Your task to perform on an android device: Go to Android settings Image 0: 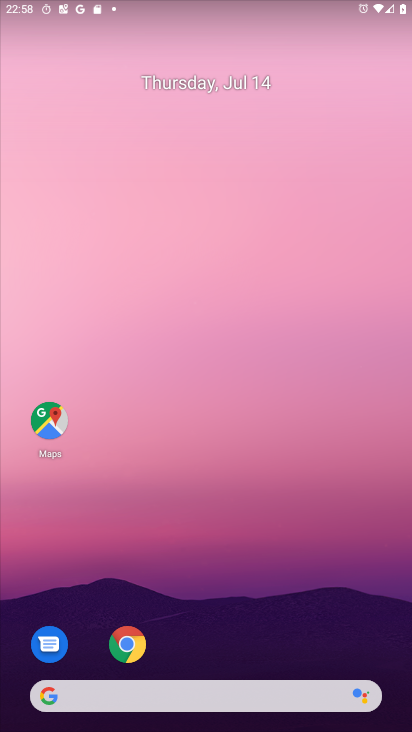
Step 0: drag from (176, 470) to (160, 217)
Your task to perform on an android device: Go to Android settings Image 1: 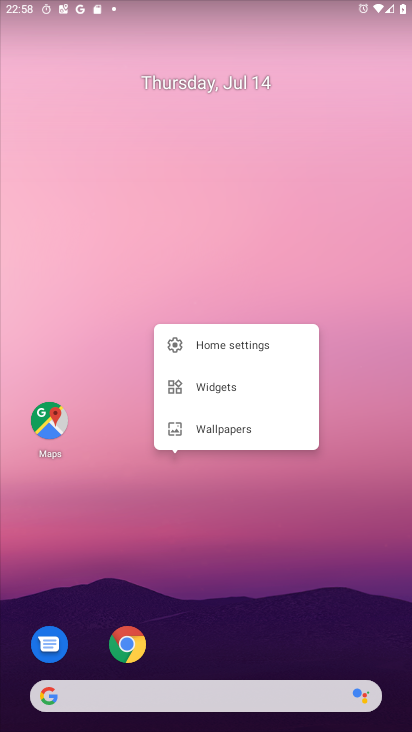
Step 1: drag from (173, 368) to (175, 218)
Your task to perform on an android device: Go to Android settings Image 2: 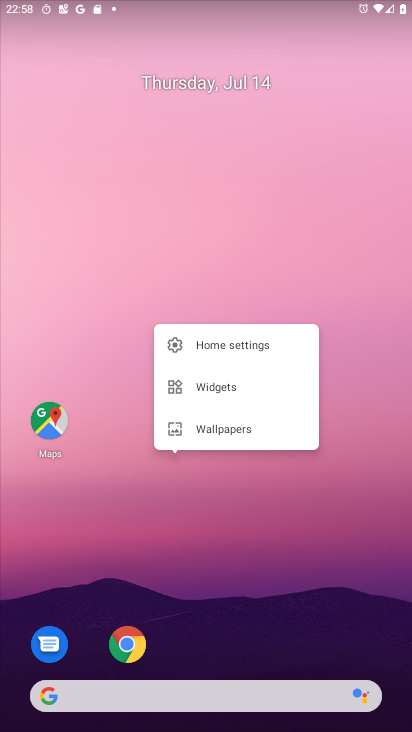
Step 2: click (213, 608)
Your task to perform on an android device: Go to Android settings Image 3: 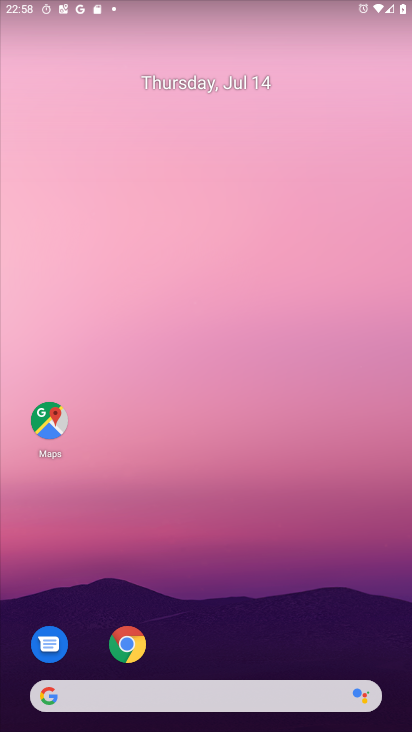
Step 3: drag from (203, 440) to (208, 206)
Your task to perform on an android device: Go to Android settings Image 4: 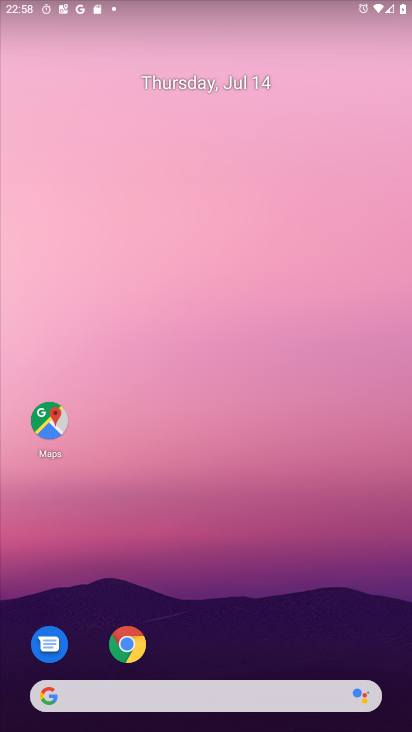
Step 4: drag from (228, 645) to (200, 171)
Your task to perform on an android device: Go to Android settings Image 5: 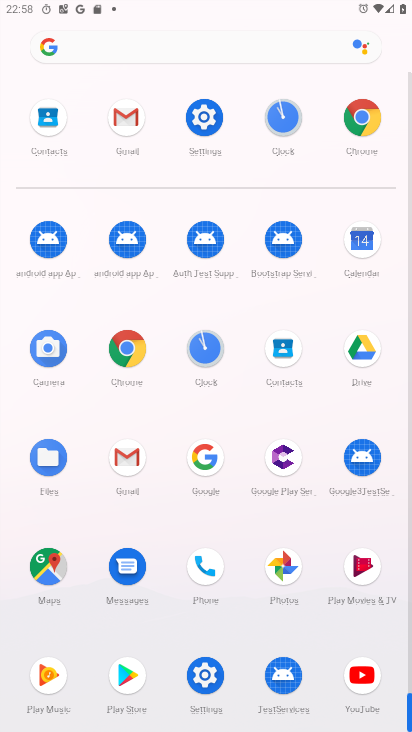
Step 5: click (199, 125)
Your task to perform on an android device: Go to Android settings Image 6: 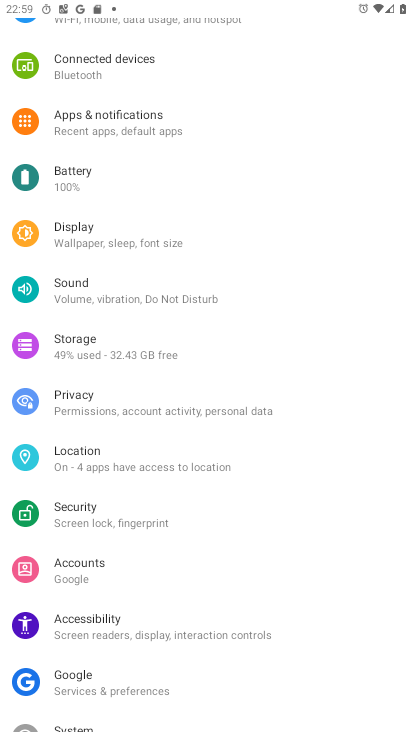
Step 6: task complete